Your task to perform on an android device: turn on location history Image 0: 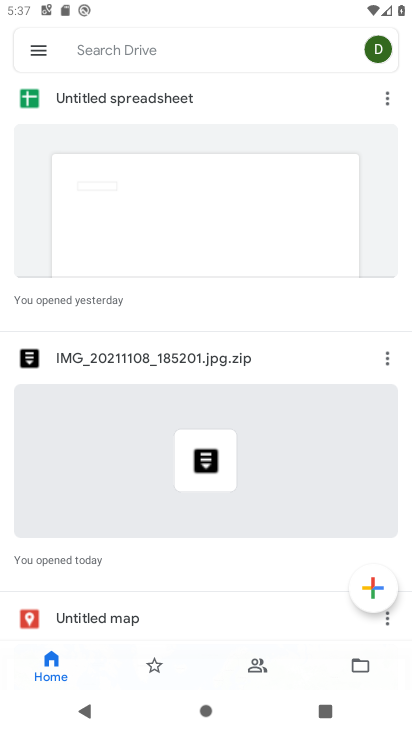
Step 0: press home button
Your task to perform on an android device: turn on location history Image 1: 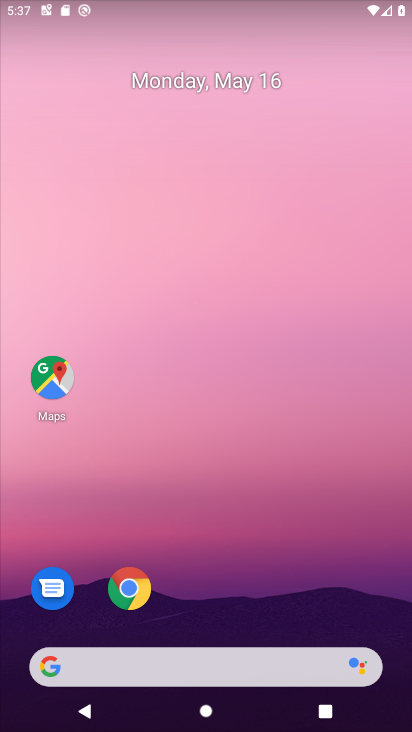
Step 1: drag from (243, 508) to (233, 196)
Your task to perform on an android device: turn on location history Image 2: 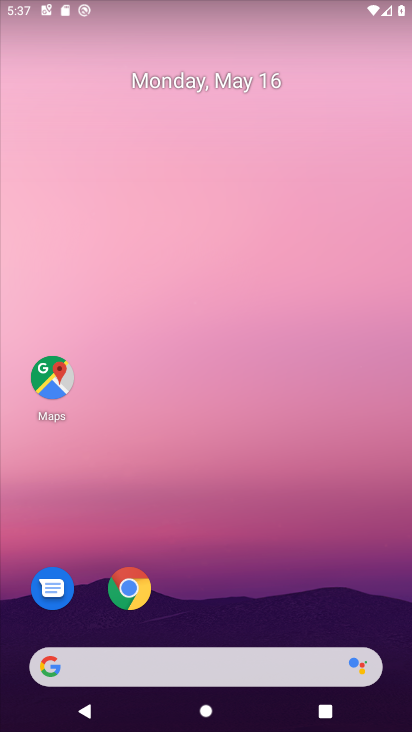
Step 2: drag from (231, 530) to (159, 0)
Your task to perform on an android device: turn on location history Image 3: 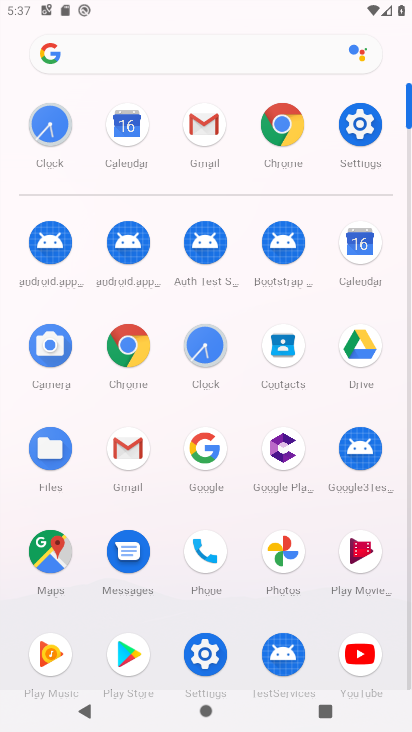
Step 3: click (354, 137)
Your task to perform on an android device: turn on location history Image 4: 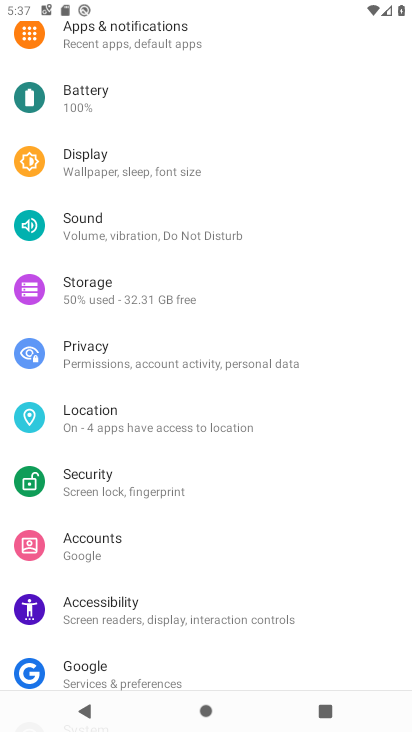
Step 4: click (127, 419)
Your task to perform on an android device: turn on location history Image 5: 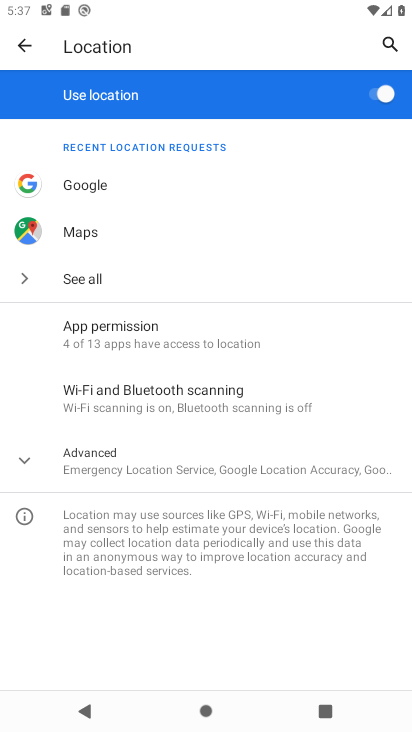
Step 5: task complete